Your task to perform on an android device: Go to privacy settings Image 0: 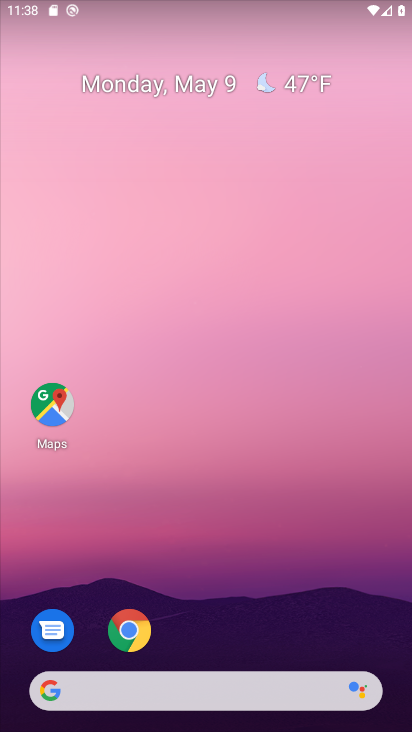
Step 0: click (133, 632)
Your task to perform on an android device: Go to privacy settings Image 1: 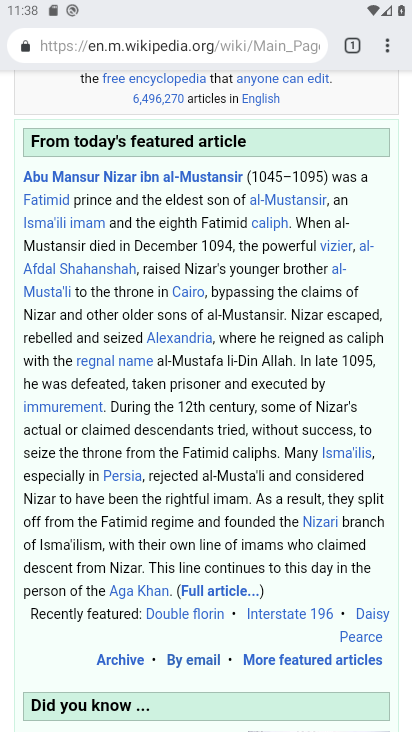
Step 1: click (389, 44)
Your task to perform on an android device: Go to privacy settings Image 2: 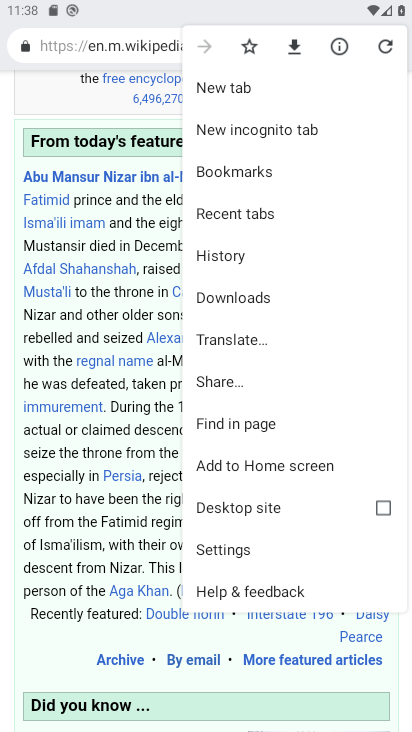
Step 2: click (221, 547)
Your task to perform on an android device: Go to privacy settings Image 3: 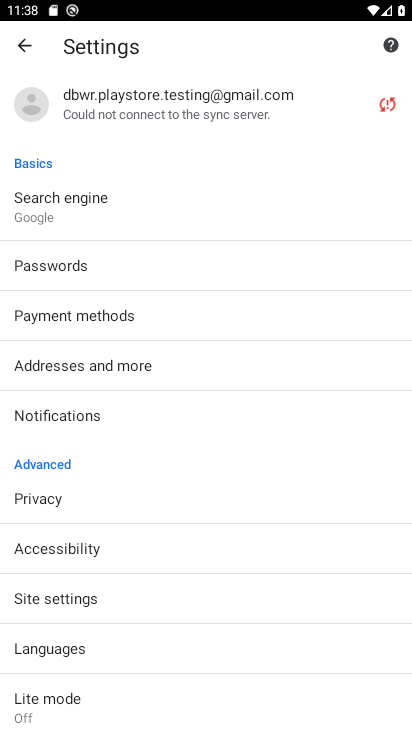
Step 3: click (40, 495)
Your task to perform on an android device: Go to privacy settings Image 4: 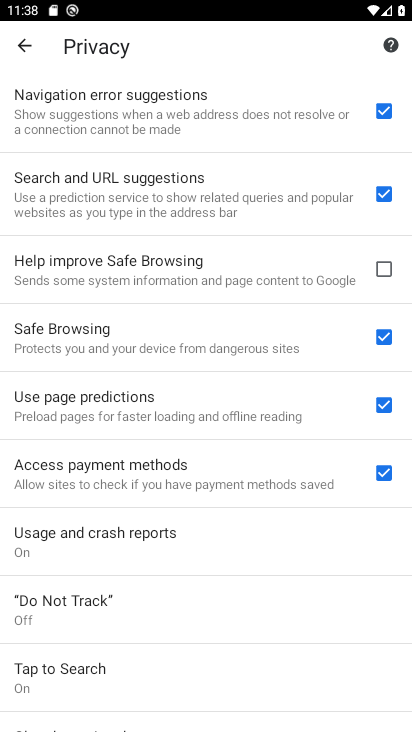
Step 4: task complete